Your task to perform on an android device: clear all cookies in the chrome app Image 0: 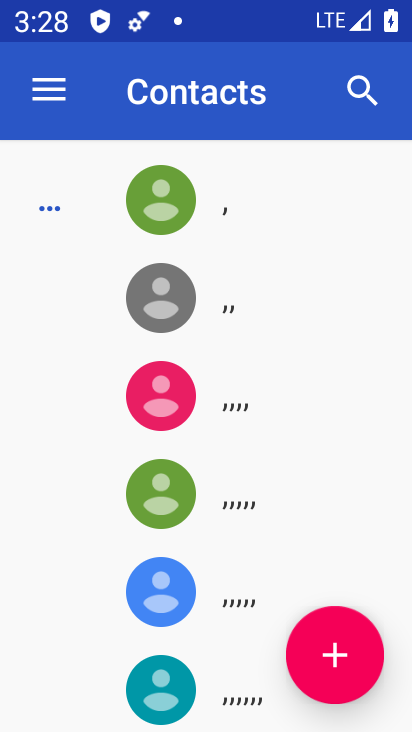
Step 0: press home button
Your task to perform on an android device: clear all cookies in the chrome app Image 1: 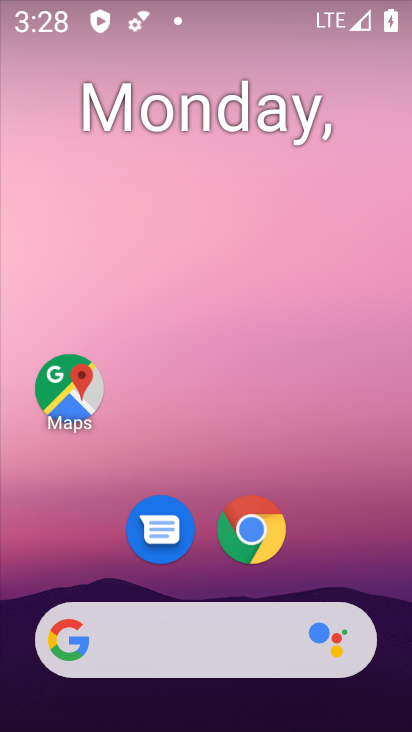
Step 1: click (239, 529)
Your task to perform on an android device: clear all cookies in the chrome app Image 2: 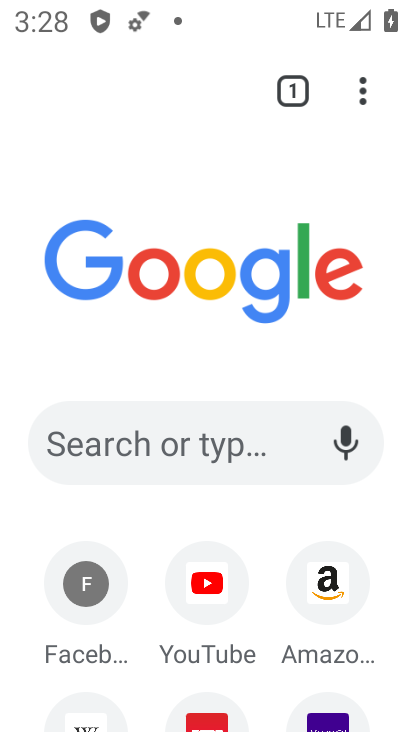
Step 2: click (360, 84)
Your task to perform on an android device: clear all cookies in the chrome app Image 3: 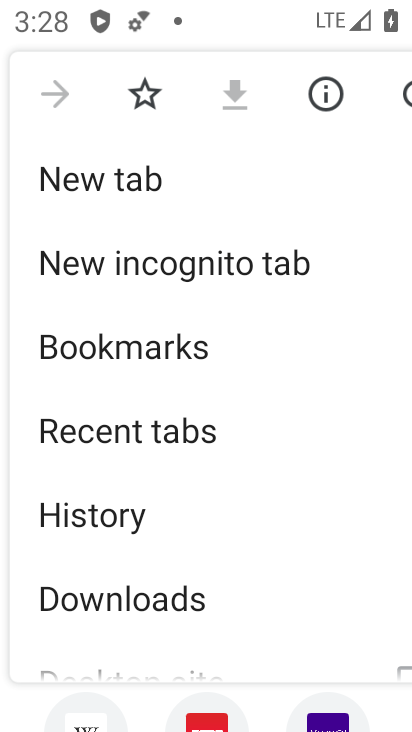
Step 3: drag from (129, 560) to (136, 238)
Your task to perform on an android device: clear all cookies in the chrome app Image 4: 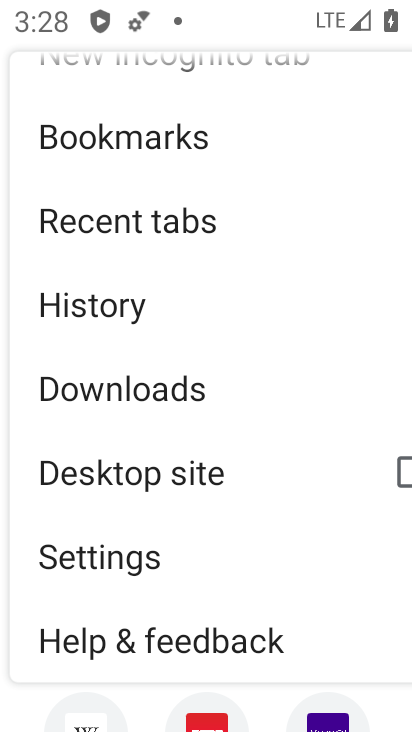
Step 4: click (84, 319)
Your task to perform on an android device: clear all cookies in the chrome app Image 5: 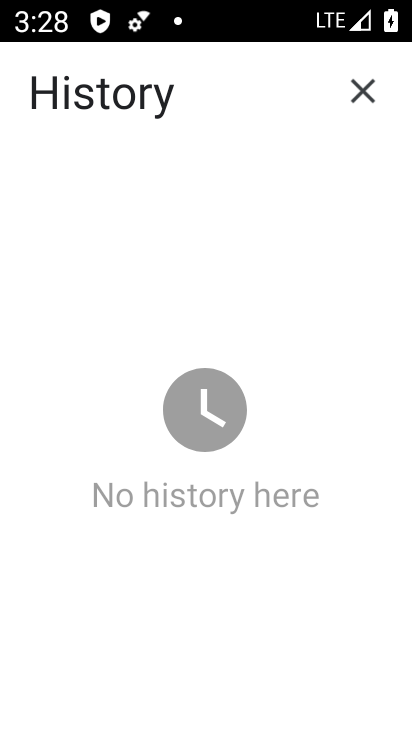
Step 5: task complete